Your task to perform on an android device: What's on my calendar today? Image 0: 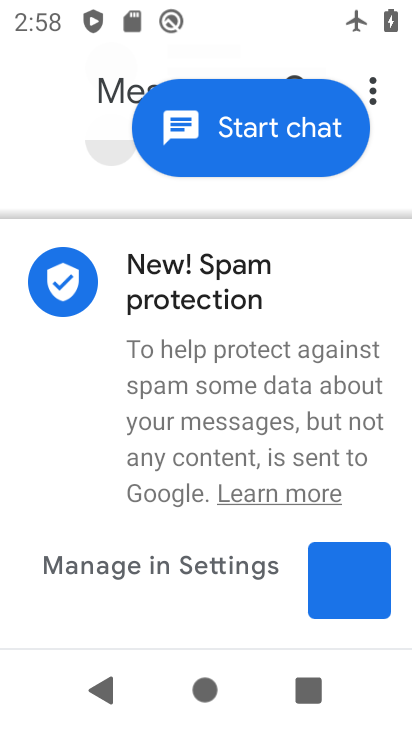
Step 0: press home button
Your task to perform on an android device: What's on my calendar today? Image 1: 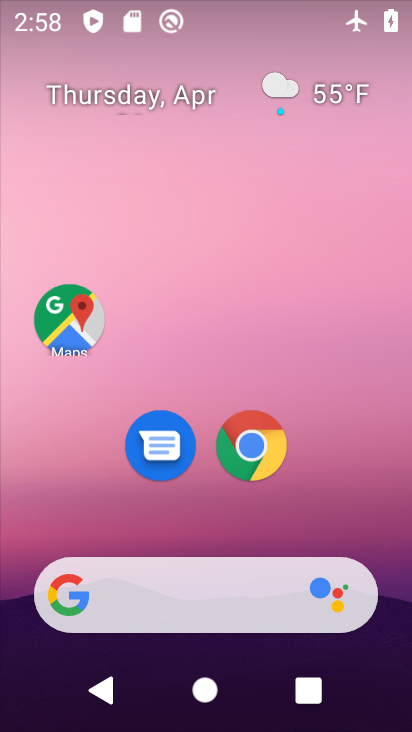
Step 1: drag from (323, 520) to (269, 13)
Your task to perform on an android device: What's on my calendar today? Image 2: 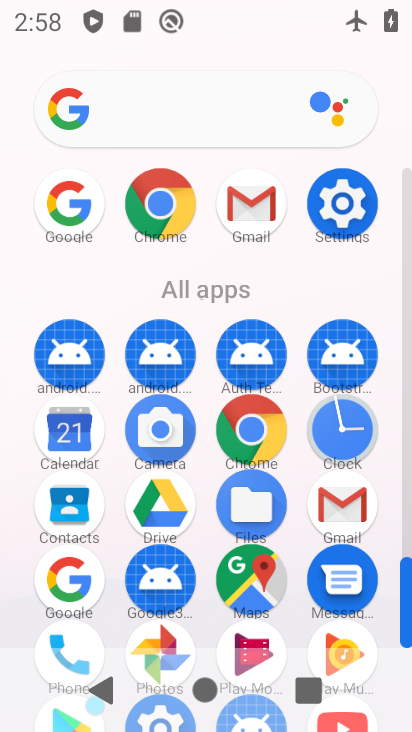
Step 2: click (73, 431)
Your task to perform on an android device: What's on my calendar today? Image 3: 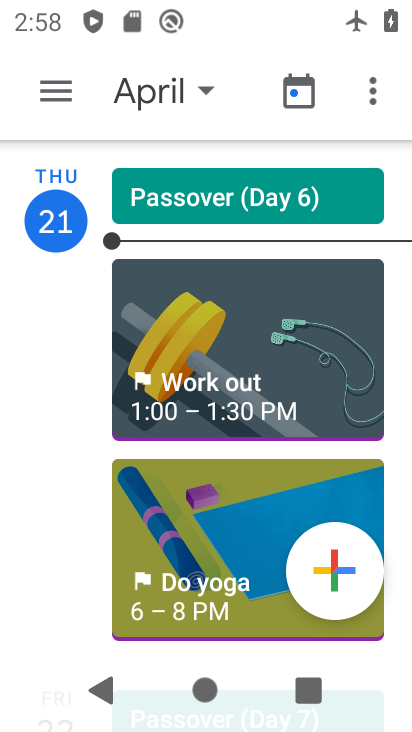
Step 3: click (73, 431)
Your task to perform on an android device: What's on my calendar today? Image 4: 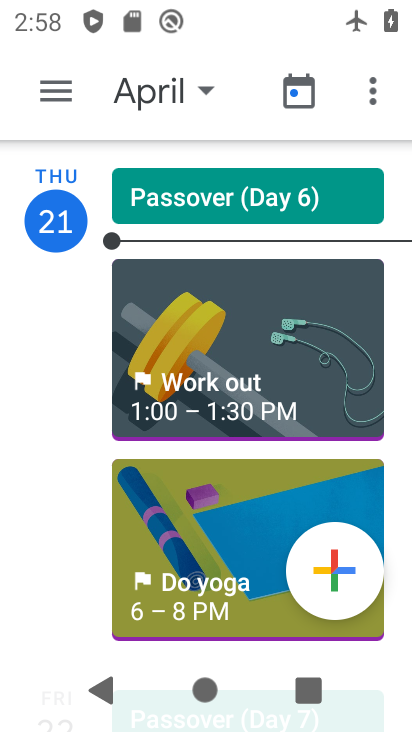
Step 4: task complete